Your task to perform on an android device: turn off improve location accuracy Image 0: 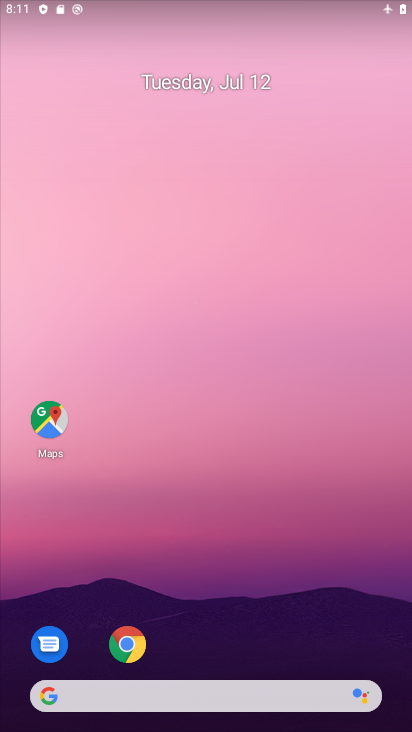
Step 0: drag from (210, 644) to (216, 251)
Your task to perform on an android device: turn off improve location accuracy Image 1: 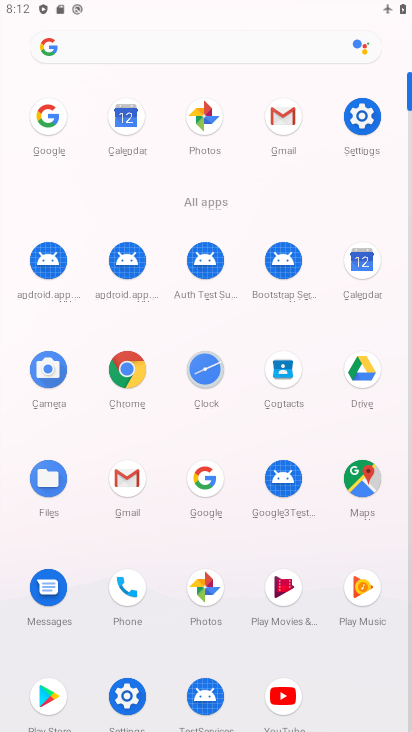
Step 1: click (356, 111)
Your task to perform on an android device: turn off improve location accuracy Image 2: 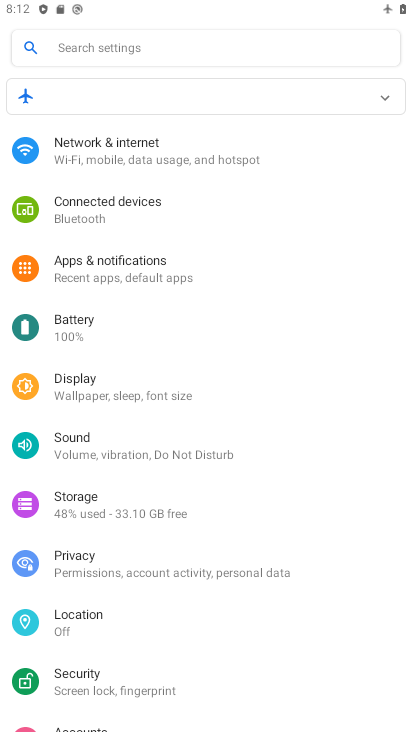
Step 2: click (125, 622)
Your task to perform on an android device: turn off improve location accuracy Image 3: 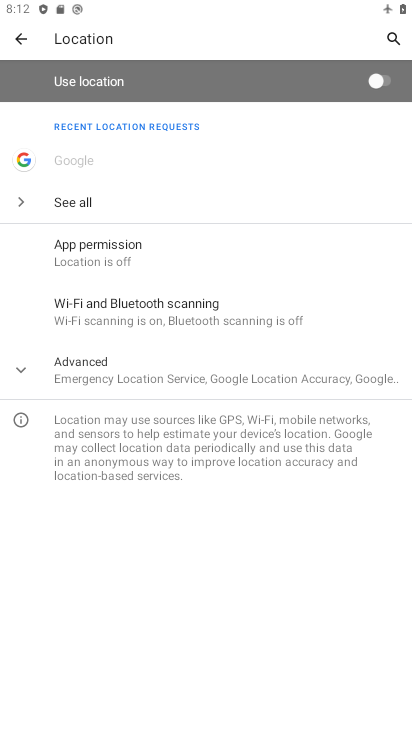
Step 3: click (168, 365)
Your task to perform on an android device: turn off improve location accuracy Image 4: 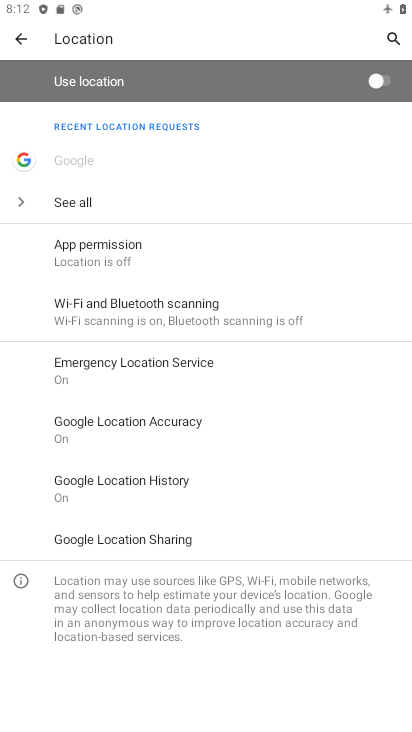
Step 4: click (207, 424)
Your task to perform on an android device: turn off improve location accuracy Image 5: 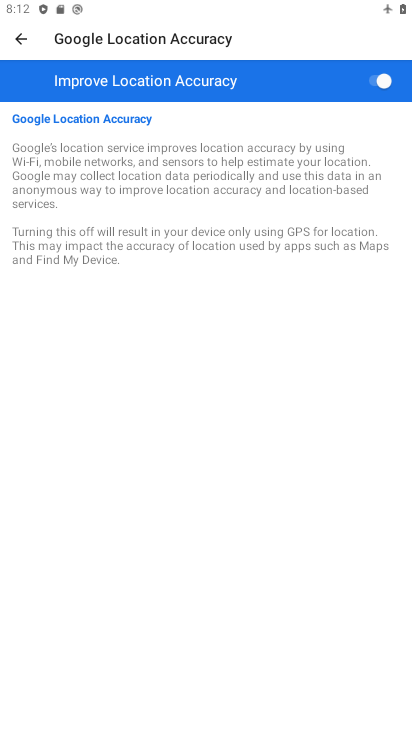
Step 5: click (368, 78)
Your task to perform on an android device: turn off improve location accuracy Image 6: 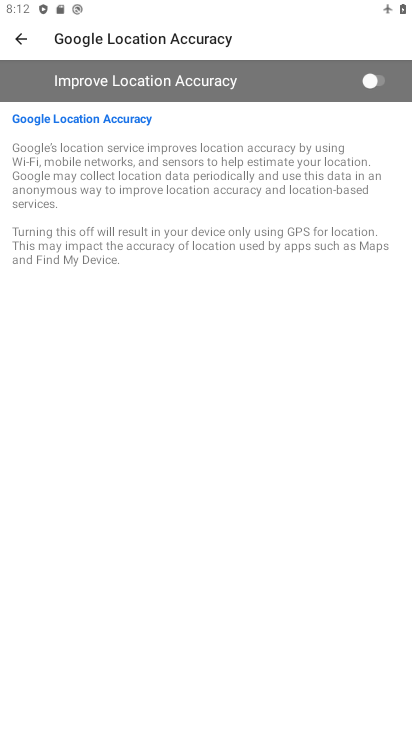
Step 6: task complete